Your task to perform on an android device: turn on wifi Image 0: 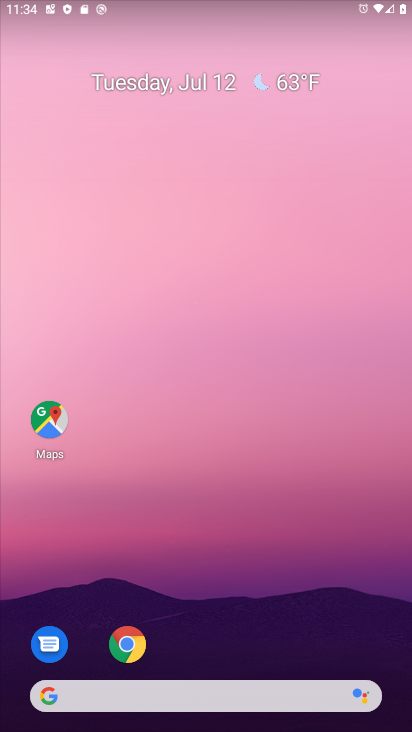
Step 0: drag from (209, 687) to (182, 64)
Your task to perform on an android device: turn on wifi Image 1: 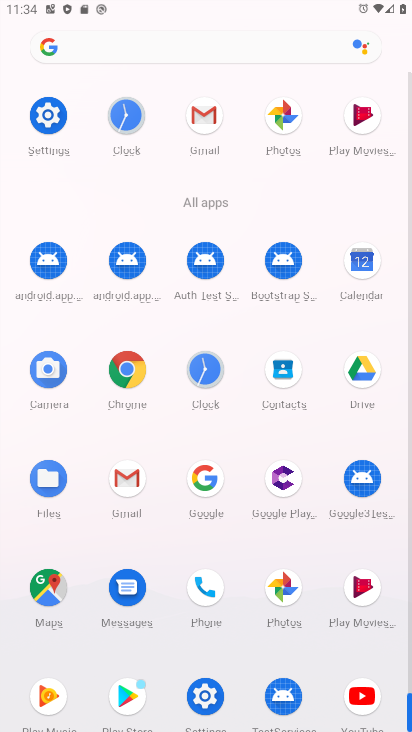
Step 1: click (47, 115)
Your task to perform on an android device: turn on wifi Image 2: 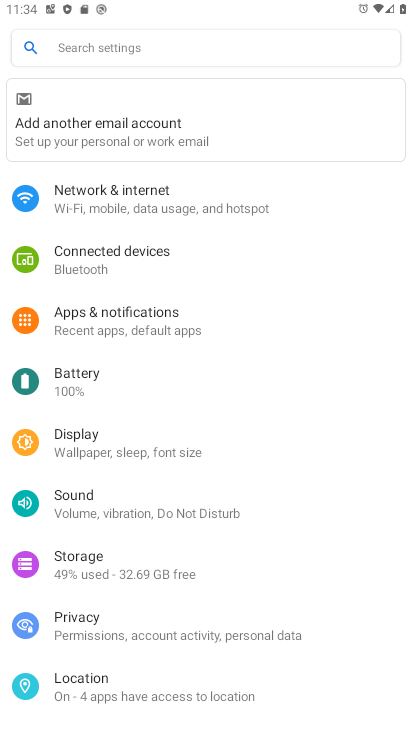
Step 2: click (84, 197)
Your task to perform on an android device: turn on wifi Image 3: 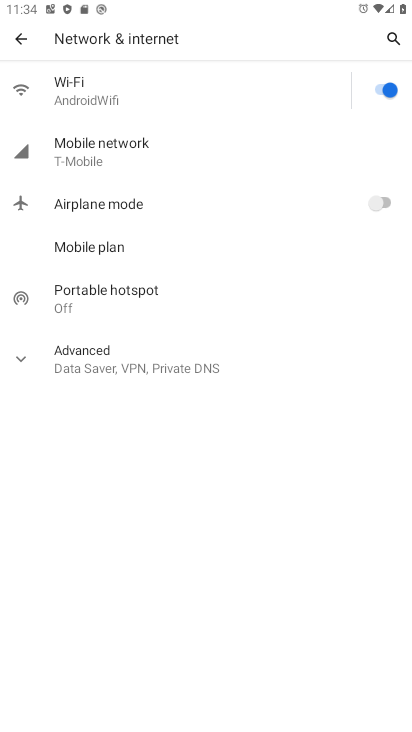
Step 3: task complete